Your task to perform on an android device: Search for sushi restaurants on Maps Image 0: 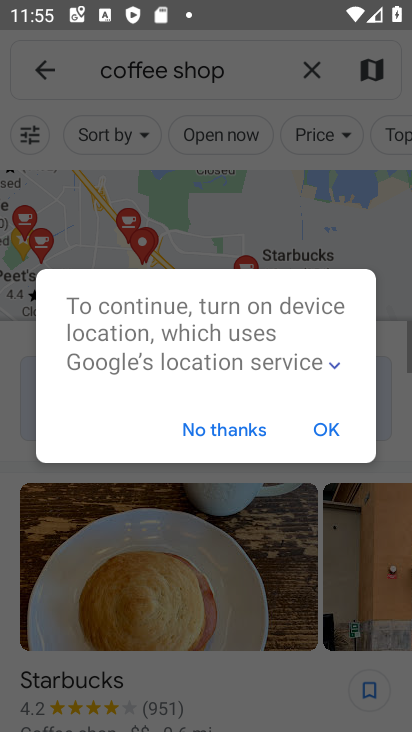
Step 0: press home button
Your task to perform on an android device: Search for sushi restaurants on Maps Image 1: 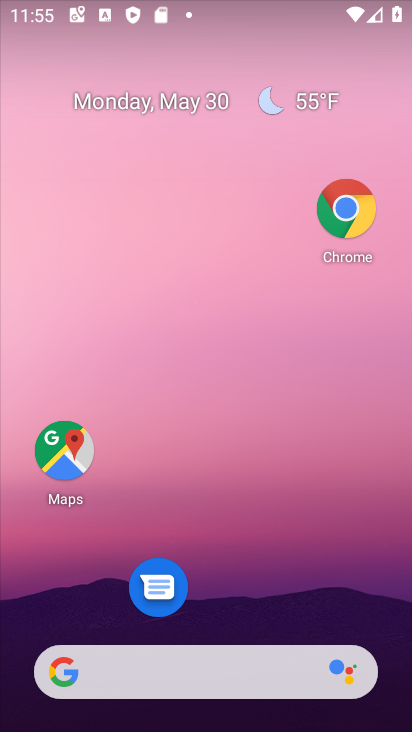
Step 1: click (339, 109)
Your task to perform on an android device: Search for sushi restaurants on Maps Image 2: 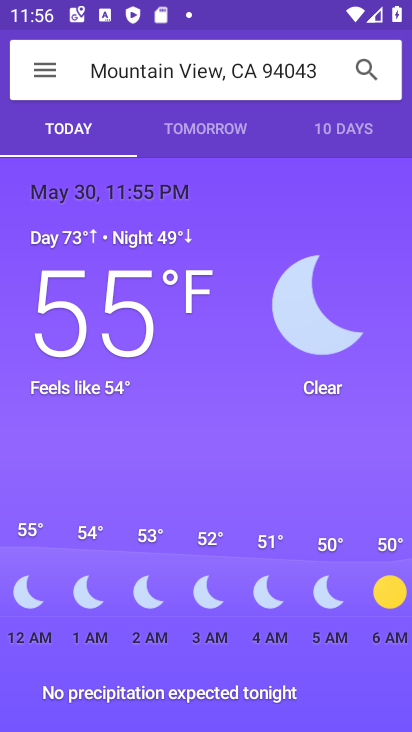
Step 2: task complete